Your task to perform on an android device: read, delete, or share a saved page in the chrome app Image 0: 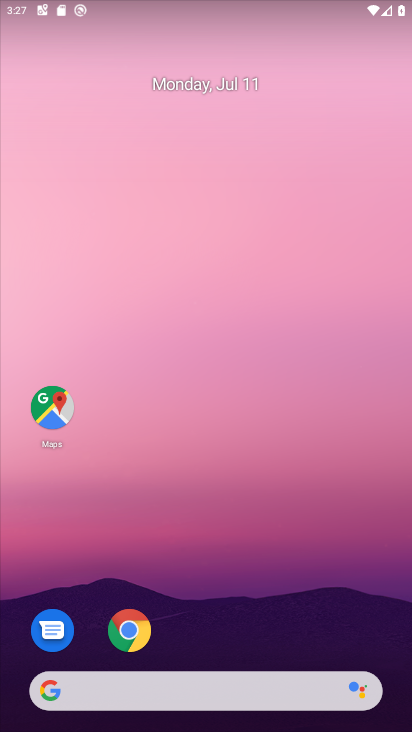
Step 0: drag from (287, 631) to (18, 13)
Your task to perform on an android device: read, delete, or share a saved page in the chrome app Image 1: 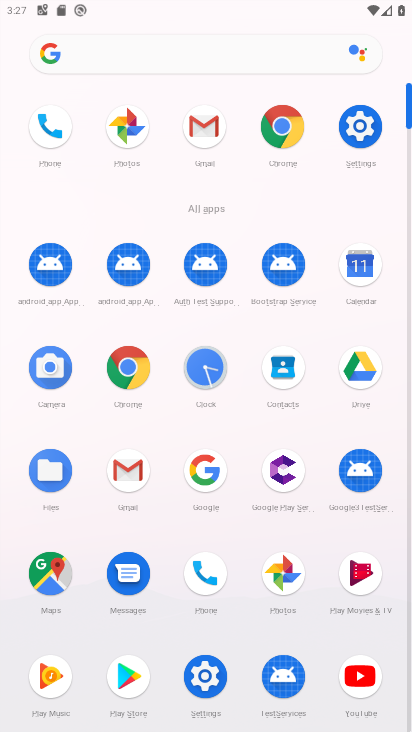
Step 1: click (292, 150)
Your task to perform on an android device: read, delete, or share a saved page in the chrome app Image 2: 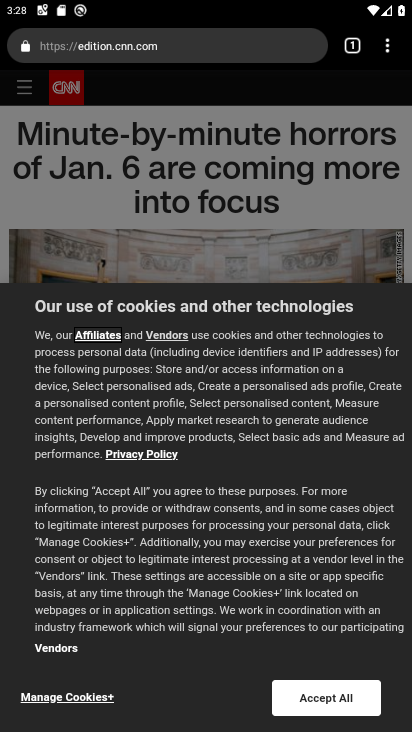
Step 2: click (398, 47)
Your task to perform on an android device: read, delete, or share a saved page in the chrome app Image 3: 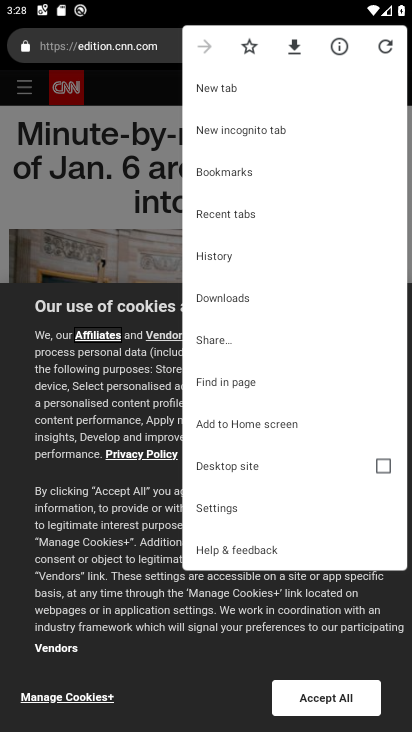
Step 3: click (231, 311)
Your task to perform on an android device: read, delete, or share a saved page in the chrome app Image 4: 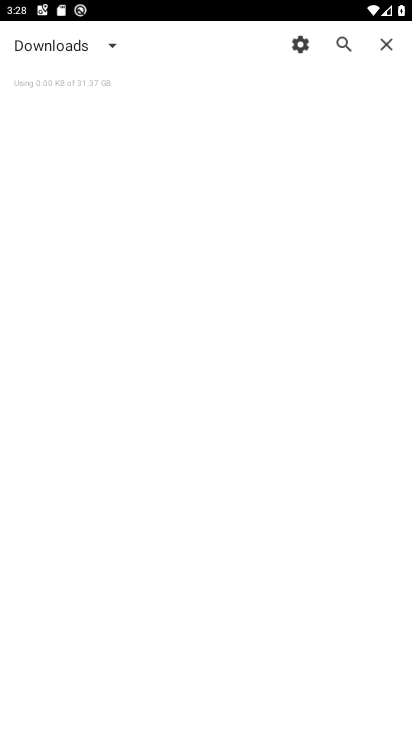
Step 4: task complete